Your task to perform on an android device: find which apps use the phone's location Image 0: 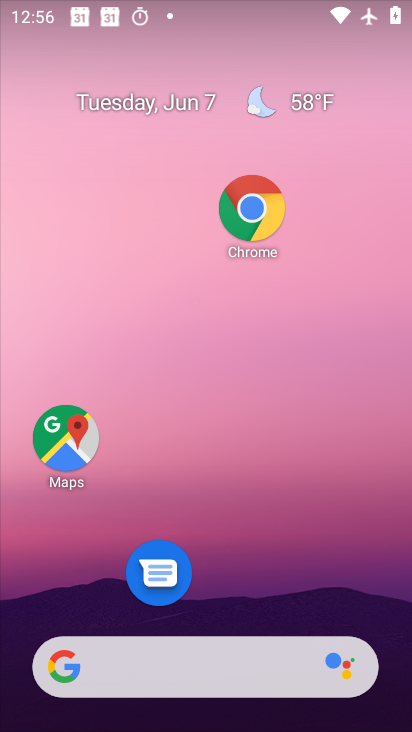
Step 0: drag from (237, 585) to (210, 242)
Your task to perform on an android device: find which apps use the phone's location Image 1: 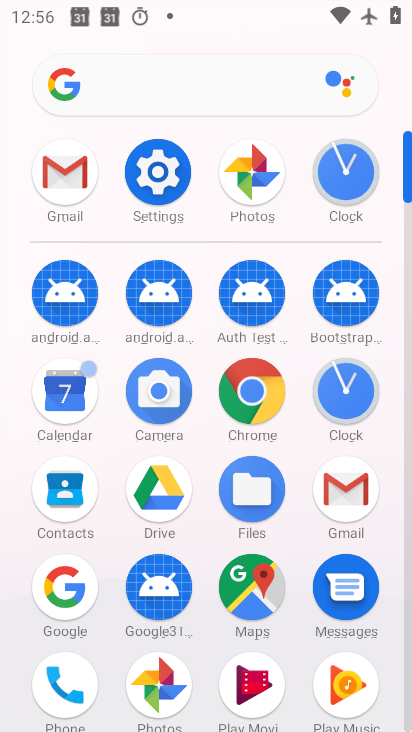
Step 1: click (141, 167)
Your task to perform on an android device: find which apps use the phone's location Image 2: 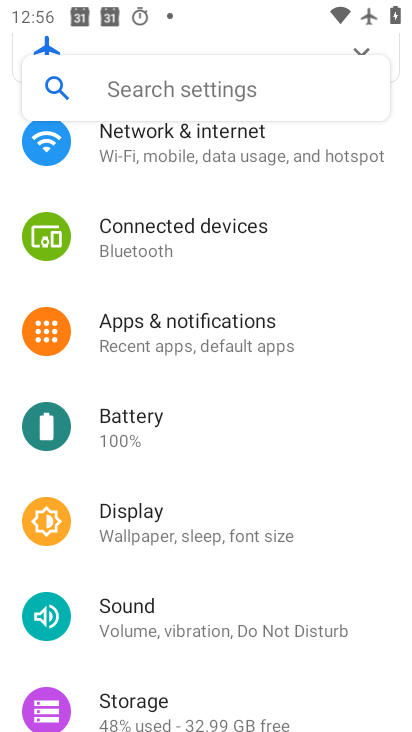
Step 2: drag from (166, 647) to (181, 328)
Your task to perform on an android device: find which apps use the phone's location Image 3: 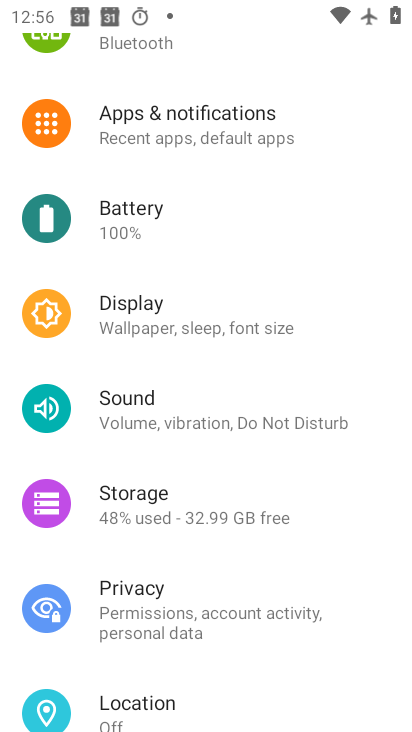
Step 3: drag from (187, 677) to (201, 413)
Your task to perform on an android device: find which apps use the phone's location Image 4: 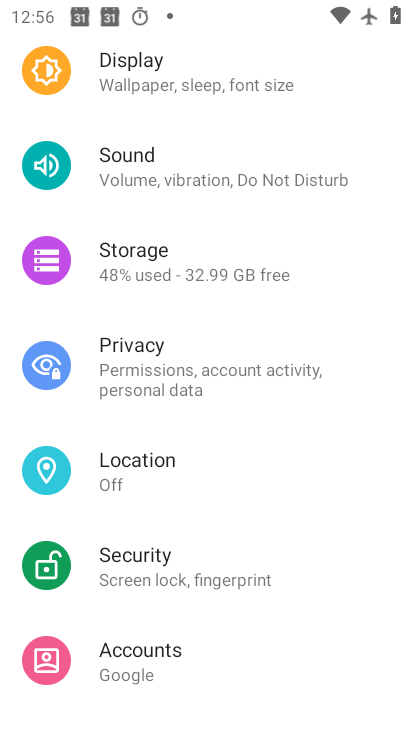
Step 4: click (183, 449)
Your task to perform on an android device: find which apps use the phone's location Image 5: 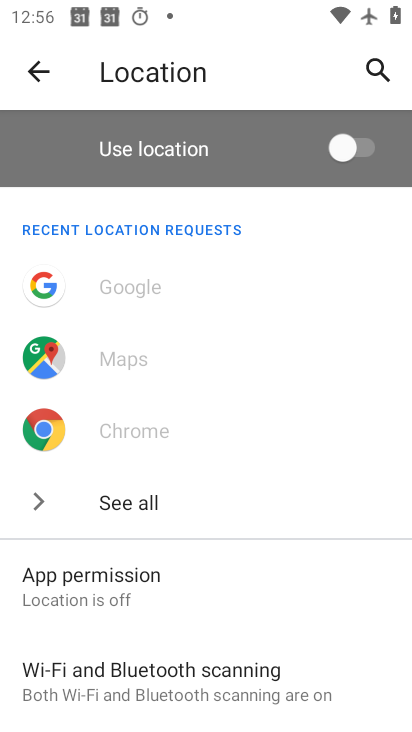
Step 5: drag from (232, 615) to (257, 383)
Your task to perform on an android device: find which apps use the phone's location Image 6: 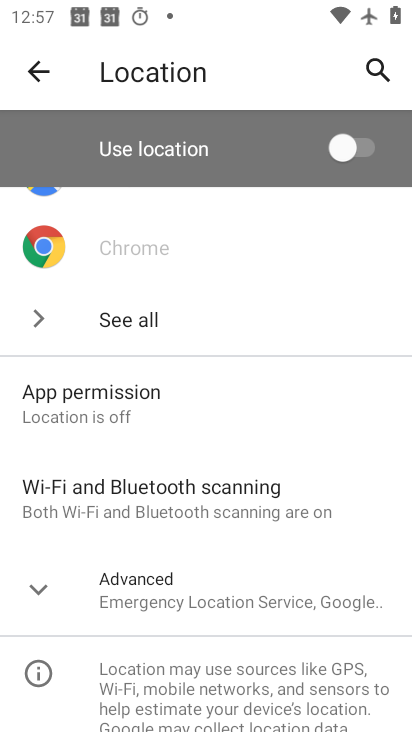
Step 6: click (206, 405)
Your task to perform on an android device: find which apps use the phone's location Image 7: 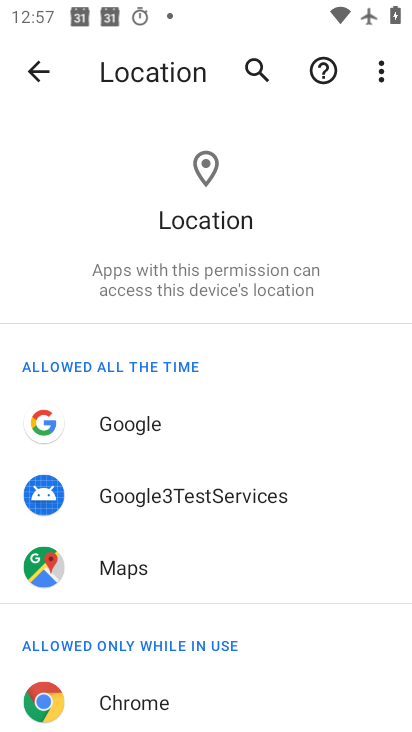
Step 7: task complete